Your task to perform on an android device: Open Google Chrome Image 0: 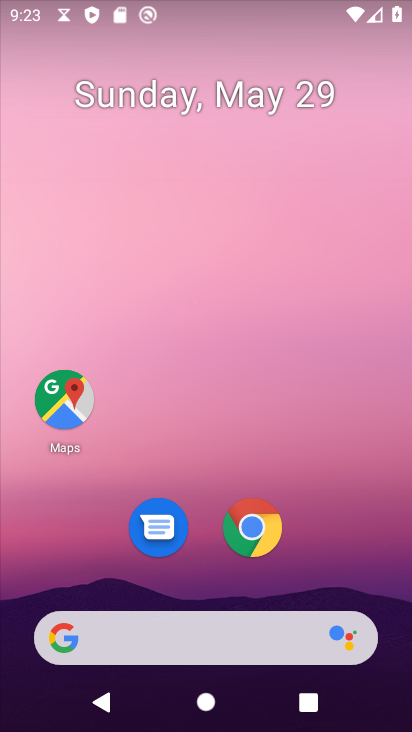
Step 0: click (264, 537)
Your task to perform on an android device: Open Google Chrome Image 1: 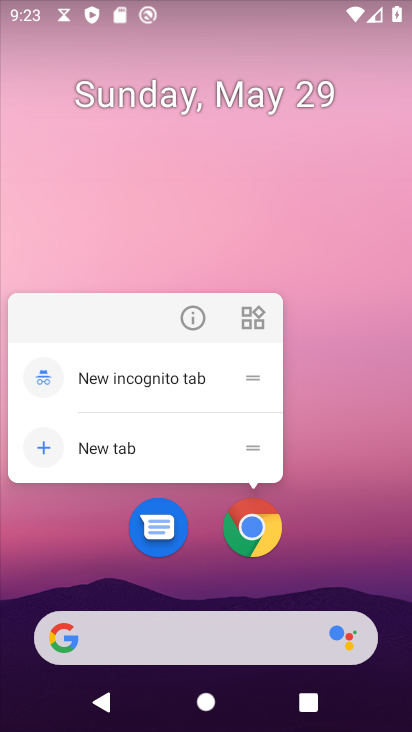
Step 1: click (242, 535)
Your task to perform on an android device: Open Google Chrome Image 2: 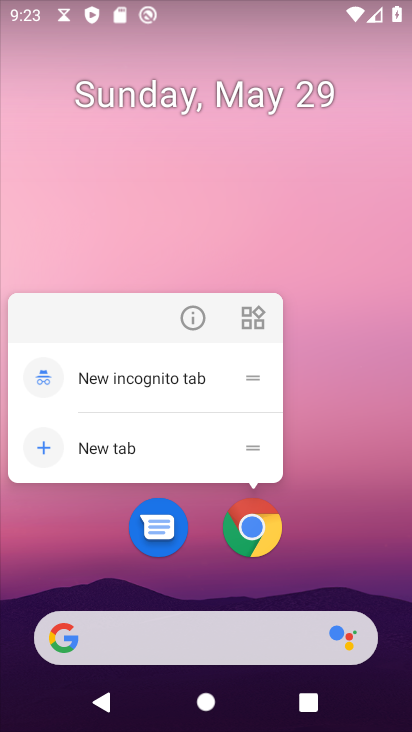
Step 2: click (251, 530)
Your task to perform on an android device: Open Google Chrome Image 3: 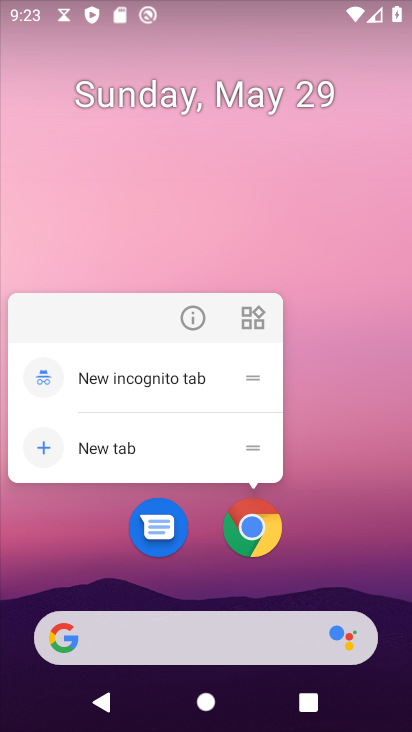
Step 3: click (253, 537)
Your task to perform on an android device: Open Google Chrome Image 4: 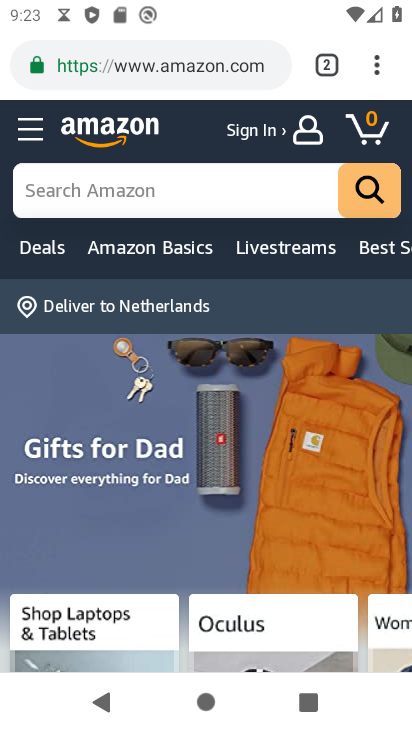
Step 4: task complete